Your task to perform on an android device: uninstall "ZOOM Cloud Meetings" Image 0: 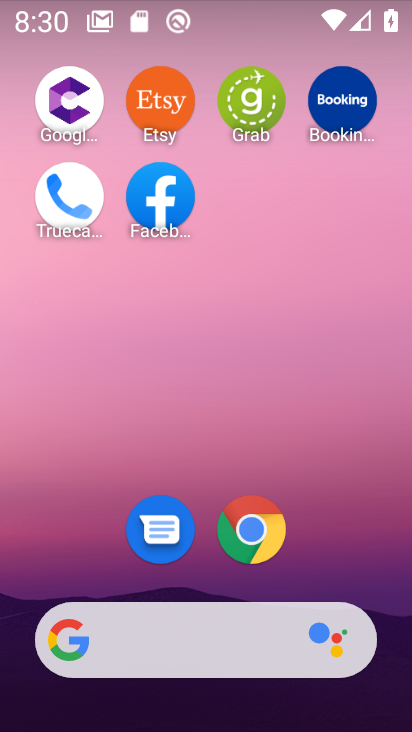
Step 0: drag from (199, 725) to (199, 101)
Your task to perform on an android device: uninstall "ZOOM Cloud Meetings" Image 1: 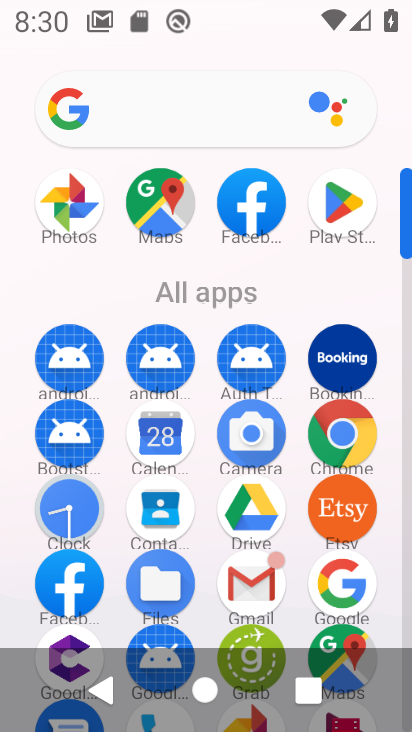
Step 1: click (338, 202)
Your task to perform on an android device: uninstall "ZOOM Cloud Meetings" Image 2: 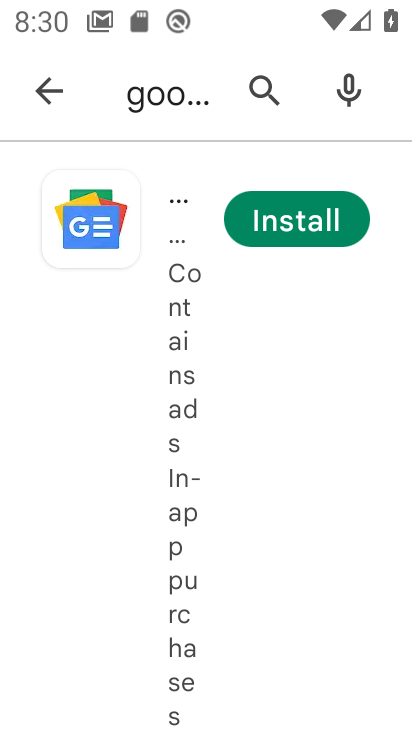
Step 2: click (256, 86)
Your task to perform on an android device: uninstall "ZOOM Cloud Meetings" Image 3: 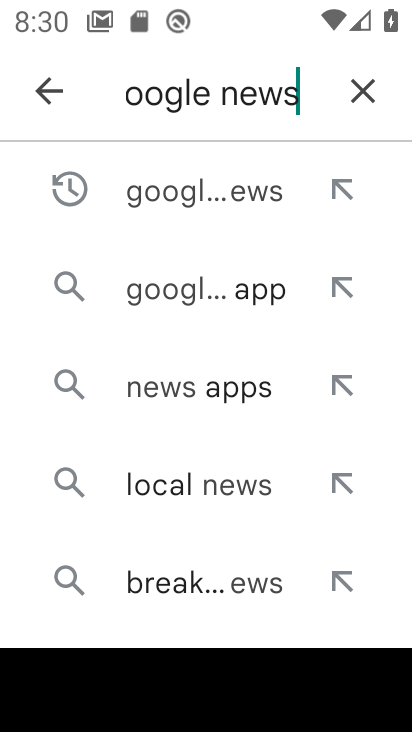
Step 3: click (368, 85)
Your task to perform on an android device: uninstall "ZOOM Cloud Meetings" Image 4: 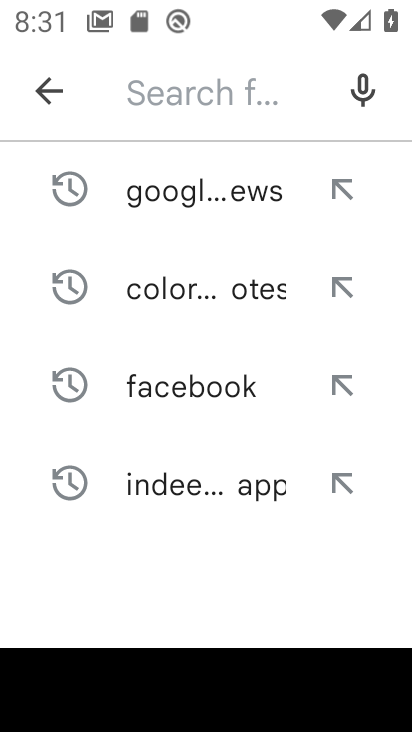
Step 4: type "ZOOM Cloud Meetings"
Your task to perform on an android device: uninstall "ZOOM Cloud Meetings" Image 5: 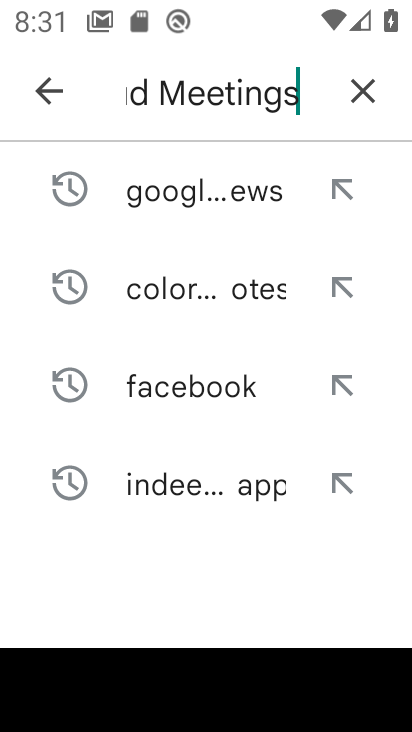
Step 5: type ""
Your task to perform on an android device: uninstall "ZOOM Cloud Meetings" Image 6: 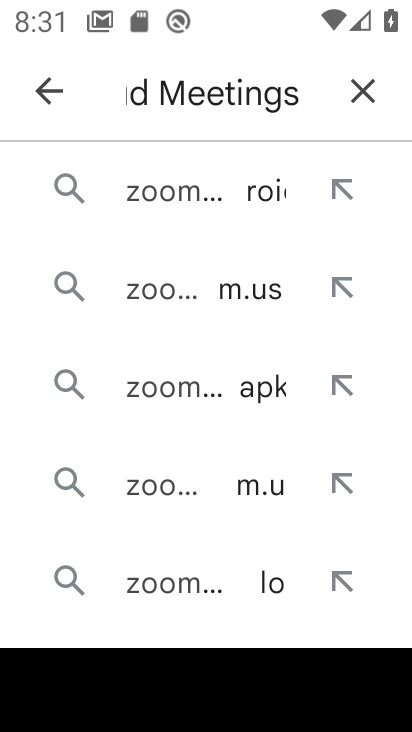
Step 6: click (157, 196)
Your task to perform on an android device: uninstall "ZOOM Cloud Meetings" Image 7: 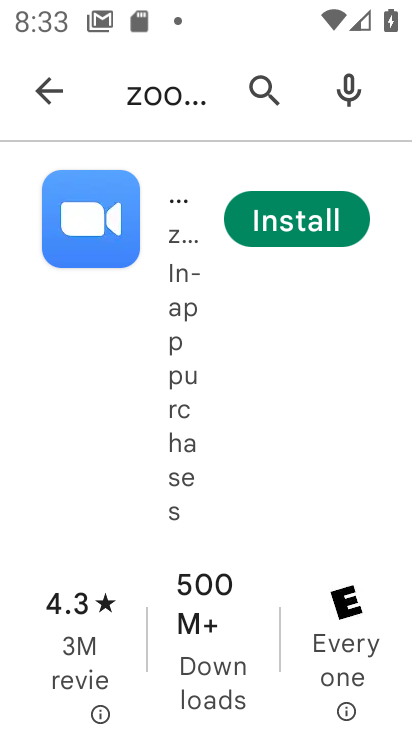
Step 7: task complete